Your task to perform on an android device: add a contact in the contacts app Image 0: 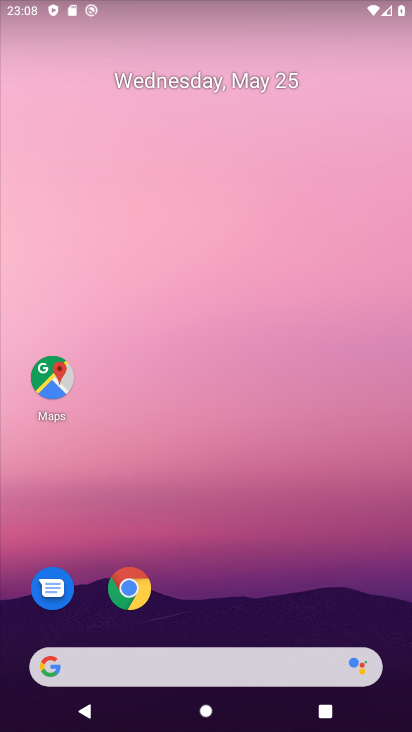
Step 0: drag from (188, 595) to (332, 24)
Your task to perform on an android device: add a contact in the contacts app Image 1: 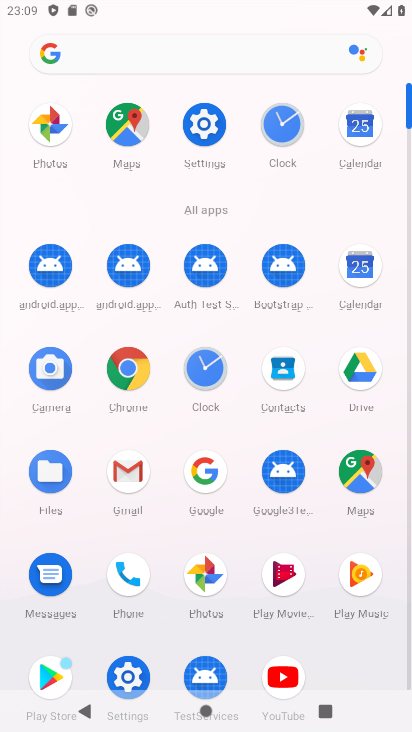
Step 1: click (287, 381)
Your task to perform on an android device: add a contact in the contacts app Image 2: 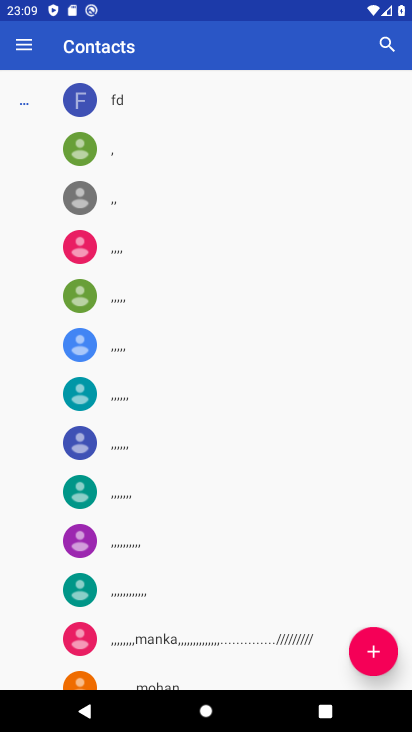
Step 2: click (374, 636)
Your task to perform on an android device: add a contact in the contacts app Image 3: 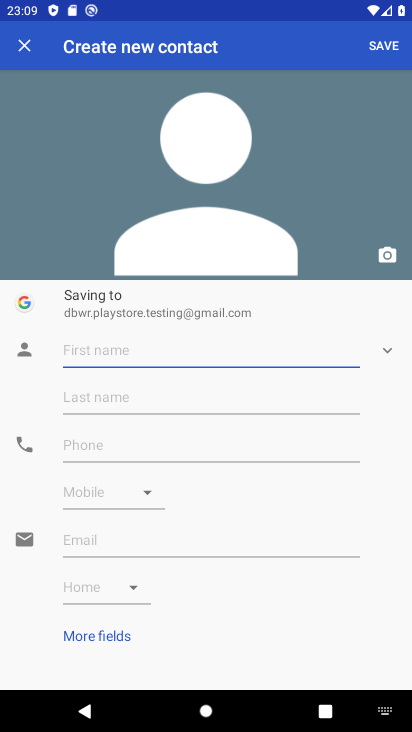
Step 3: type "hbjjn"
Your task to perform on an android device: add a contact in the contacts app Image 4: 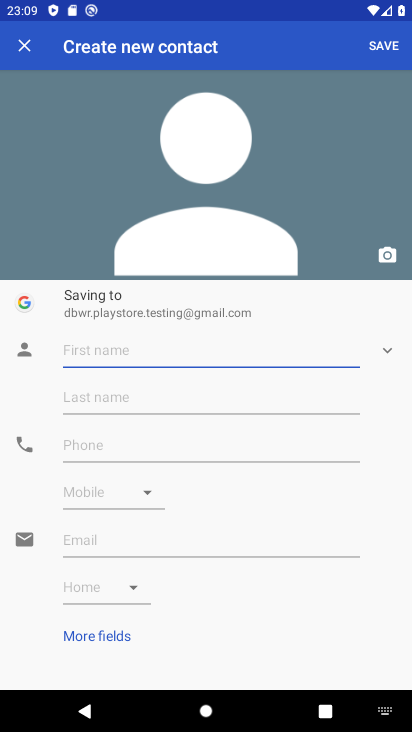
Step 4: click (134, 387)
Your task to perform on an android device: add a contact in the contacts app Image 5: 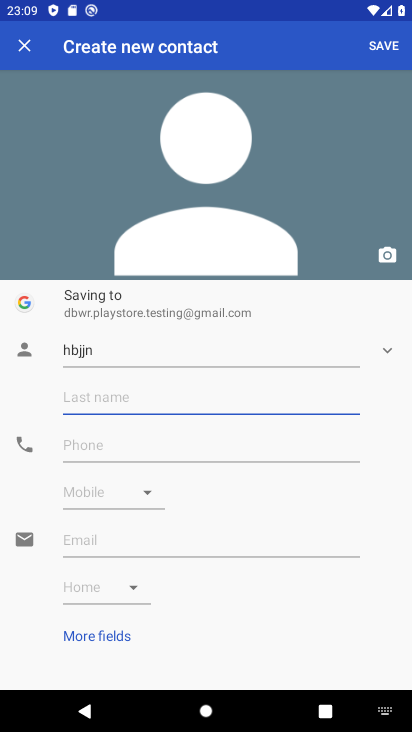
Step 5: type "vhhhbjhjb"
Your task to perform on an android device: add a contact in the contacts app Image 6: 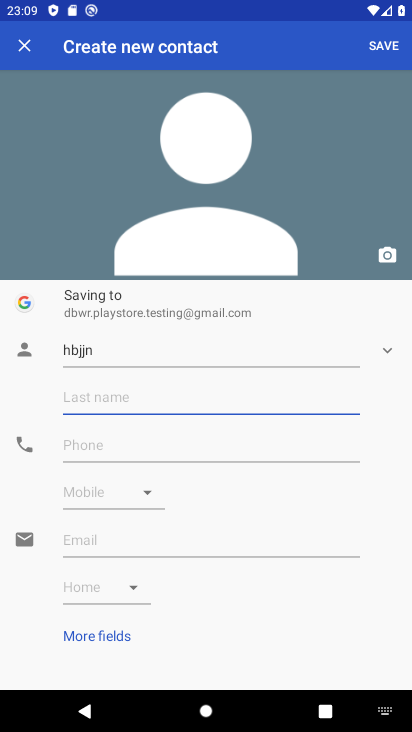
Step 6: click (93, 453)
Your task to perform on an android device: add a contact in the contacts app Image 7: 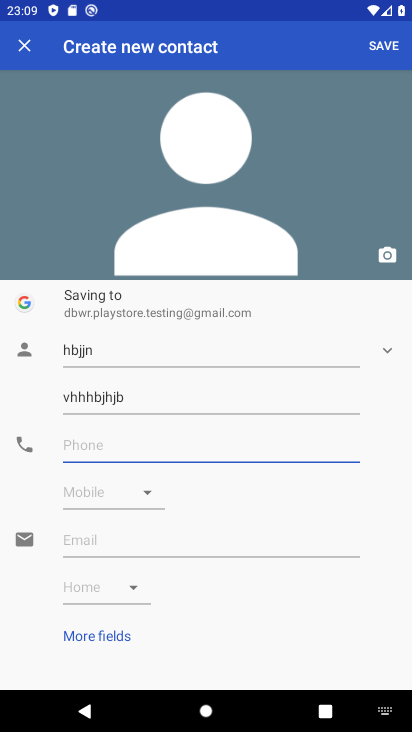
Step 7: type "767778"
Your task to perform on an android device: add a contact in the contacts app Image 8: 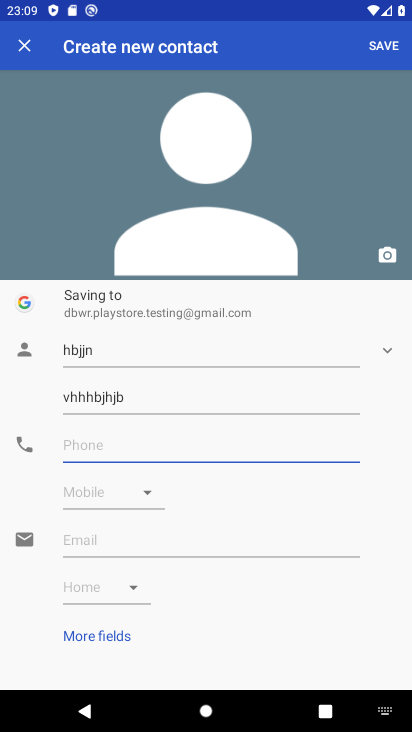
Step 8: click (127, 483)
Your task to perform on an android device: add a contact in the contacts app Image 9: 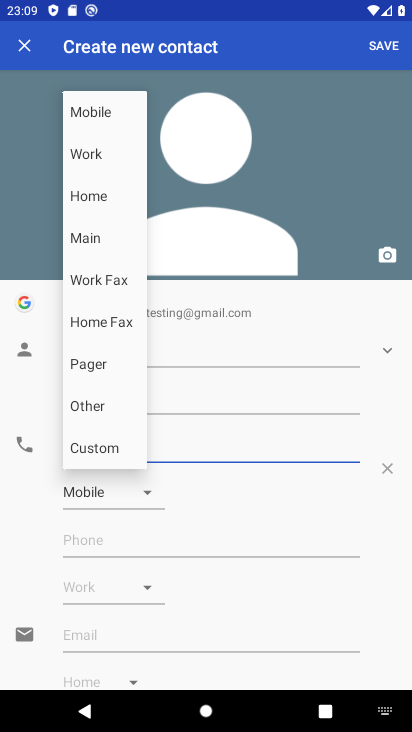
Step 9: click (379, 46)
Your task to perform on an android device: add a contact in the contacts app Image 10: 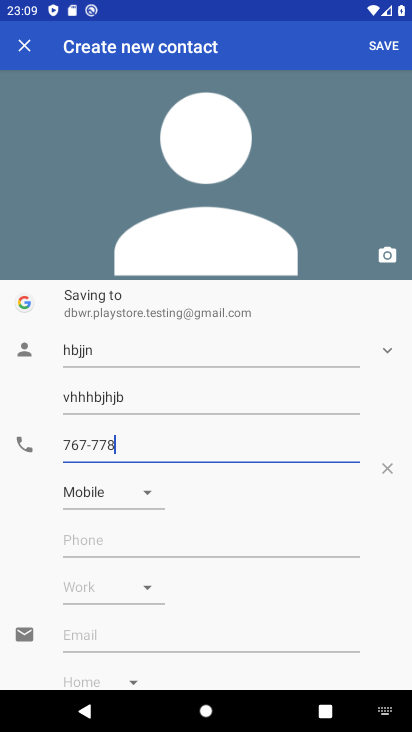
Step 10: click (373, 42)
Your task to perform on an android device: add a contact in the contacts app Image 11: 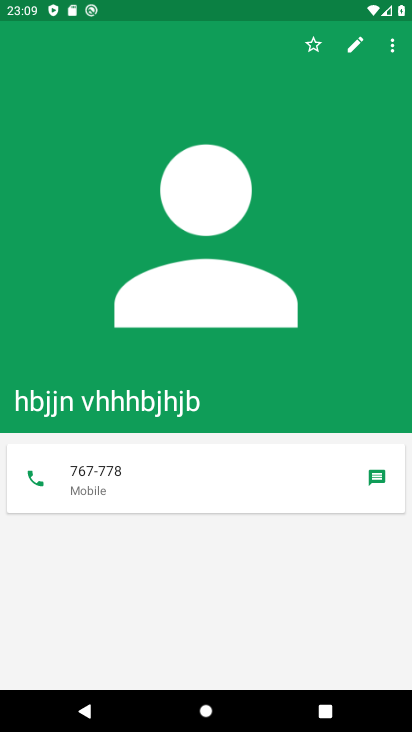
Step 11: task complete